Your task to perform on an android device: choose inbox layout in the gmail app Image 0: 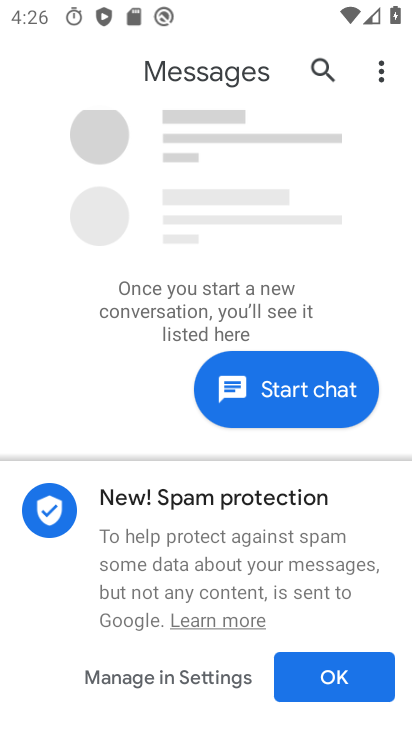
Step 0: press back button
Your task to perform on an android device: choose inbox layout in the gmail app Image 1: 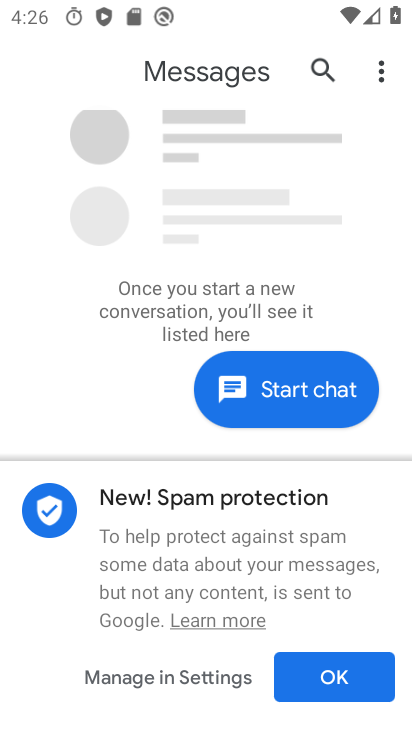
Step 1: press back button
Your task to perform on an android device: choose inbox layout in the gmail app Image 2: 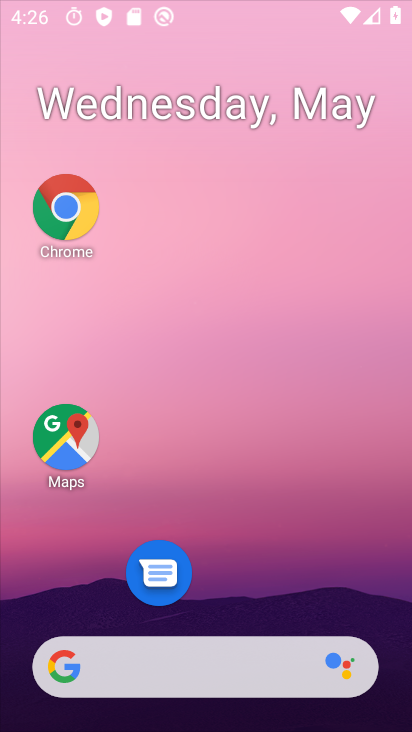
Step 2: press back button
Your task to perform on an android device: choose inbox layout in the gmail app Image 3: 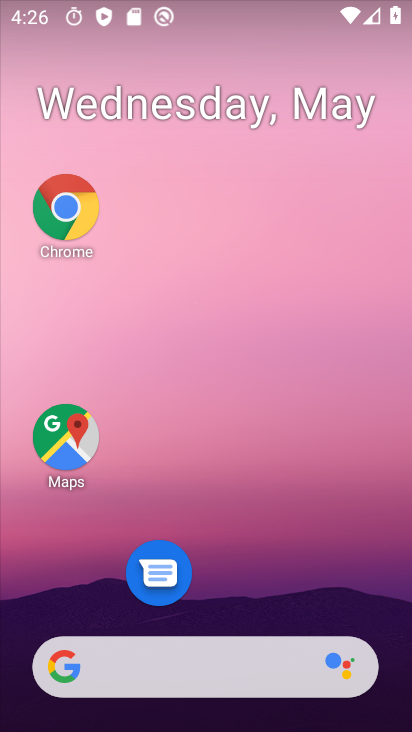
Step 3: press back button
Your task to perform on an android device: choose inbox layout in the gmail app Image 4: 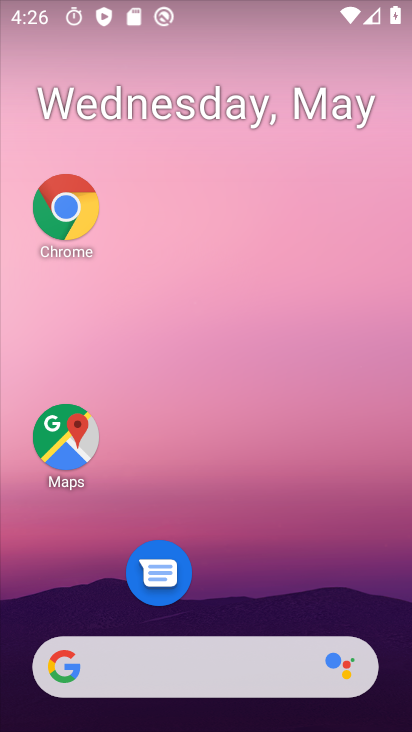
Step 4: drag from (248, 485) to (205, 14)
Your task to perform on an android device: choose inbox layout in the gmail app Image 5: 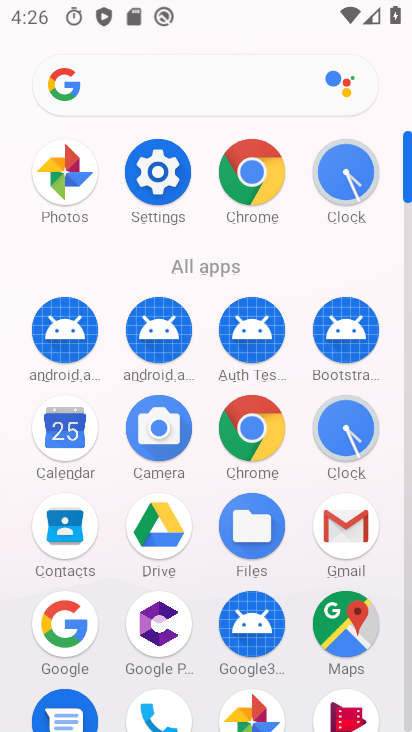
Step 5: click (338, 522)
Your task to perform on an android device: choose inbox layout in the gmail app Image 6: 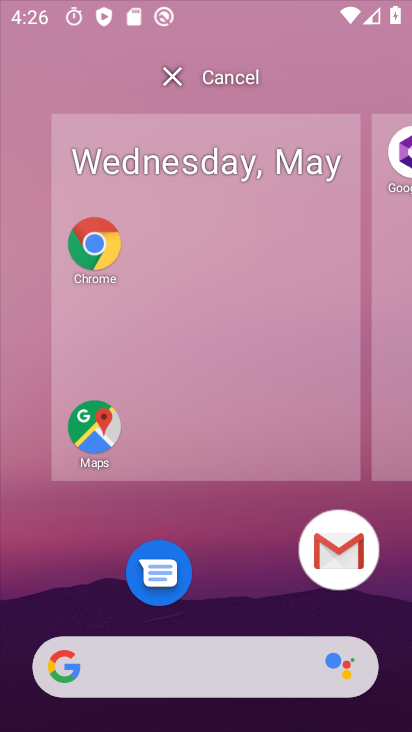
Step 6: click (331, 546)
Your task to perform on an android device: choose inbox layout in the gmail app Image 7: 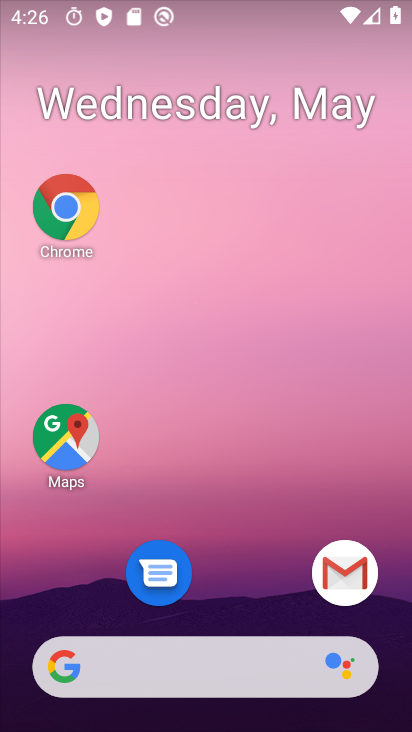
Step 7: click (349, 573)
Your task to perform on an android device: choose inbox layout in the gmail app Image 8: 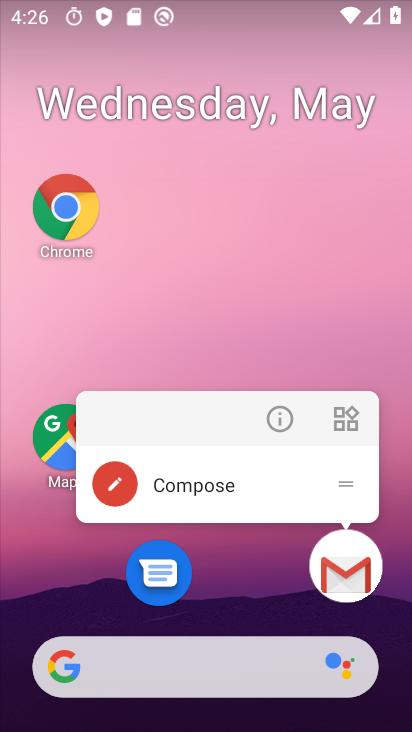
Step 8: click (356, 563)
Your task to perform on an android device: choose inbox layout in the gmail app Image 9: 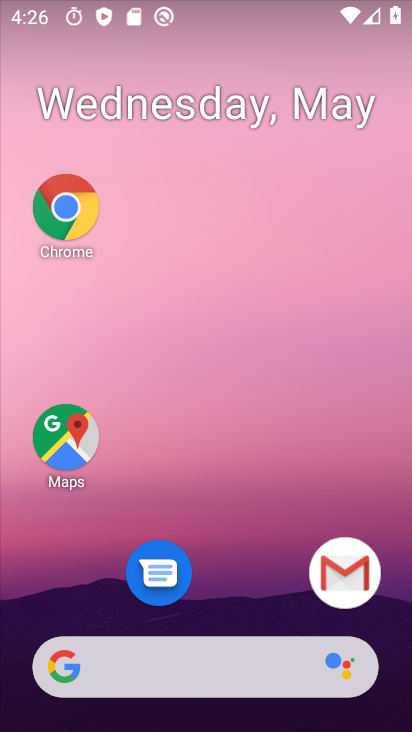
Step 9: click (357, 565)
Your task to perform on an android device: choose inbox layout in the gmail app Image 10: 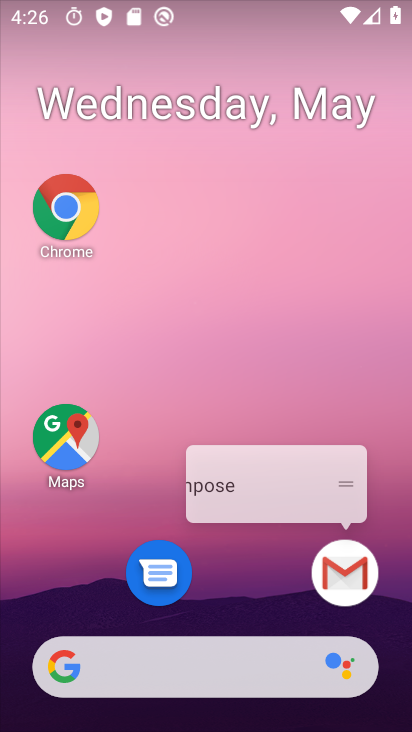
Step 10: click (333, 558)
Your task to perform on an android device: choose inbox layout in the gmail app Image 11: 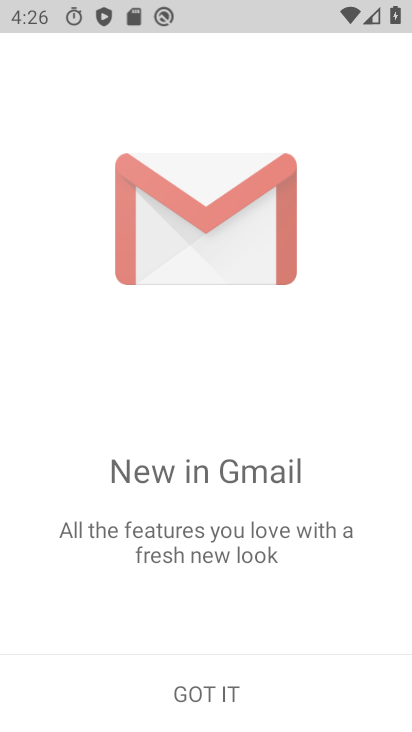
Step 11: click (359, 559)
Your task to perform on an android device: choose inbox layout in the gmail app Image 12: 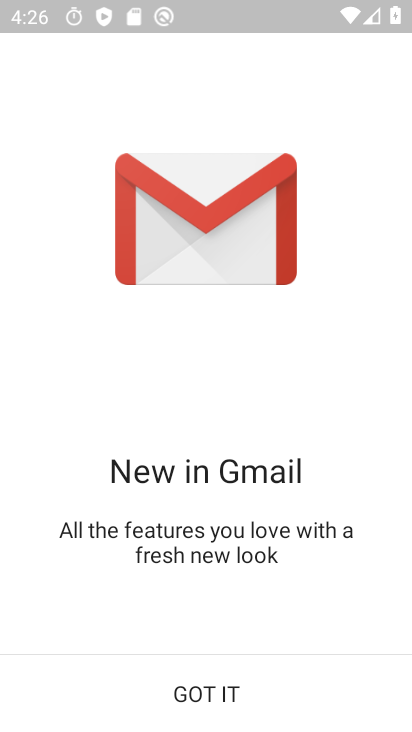
Step 12: click (216, 683)
Your task to perform on an android device: choose inbox layout in the gmail app Image 13: 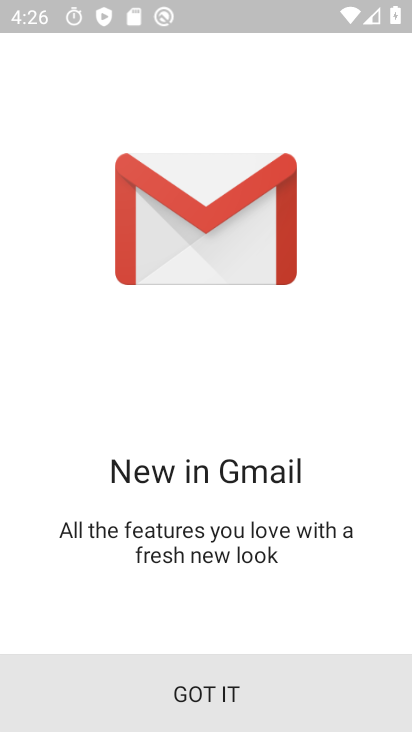
Step 13: click (216, 703)
Your task to perform on an android device: choose inbox layout in the gmail app Image 14: 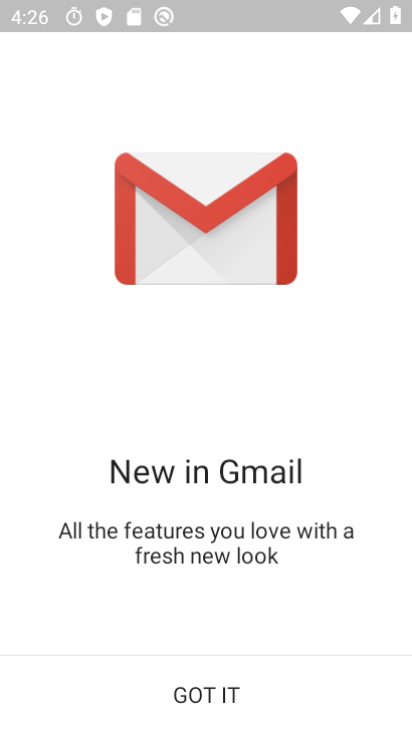
Step 14: click (212, 710)
Your task to perform on an android device: choose inbox layout in the gmail app Image 15: 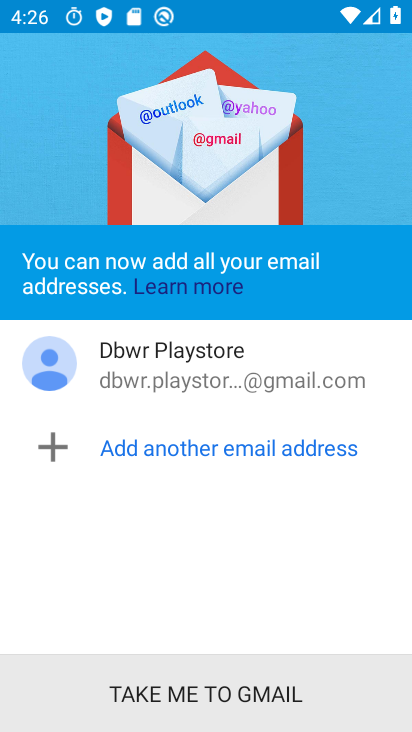
Step 15: click (204, 699)
Your task to perform on an android device: choose inbox layout in the gmail app Image 16: 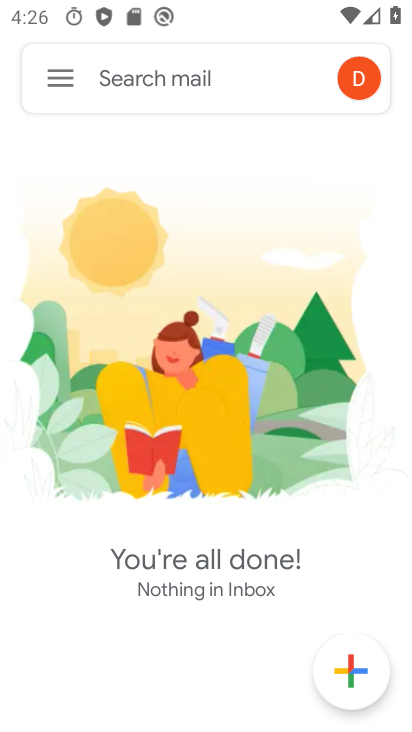
Step 16: click (182, 568)
Your task to perform on an android device: choose inbox layout in the gmail app Image 17: 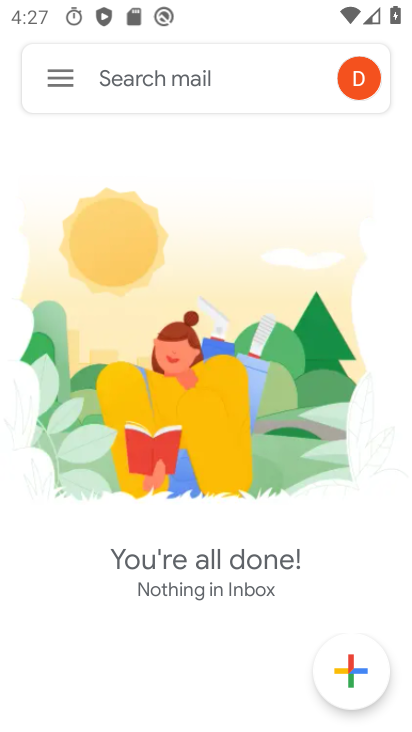
Step 17: click (182, 568)
Your task to perform on an android device: choose inbox layout in the gmail app Image 18: 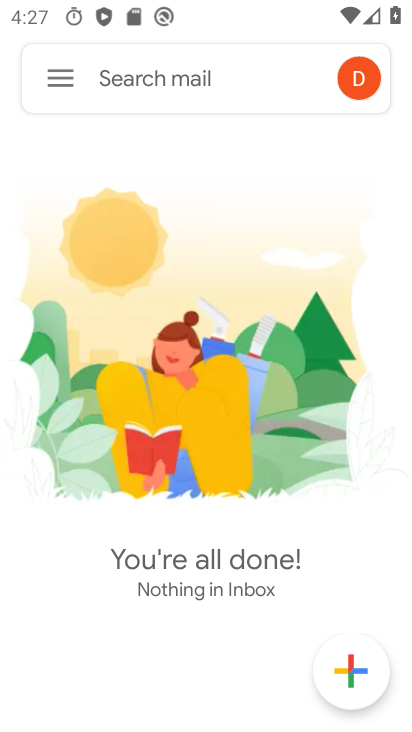
Step 18: click (183, 569)
Your task to perform on an android device: choose inbox layout in the gmail app Image 19: 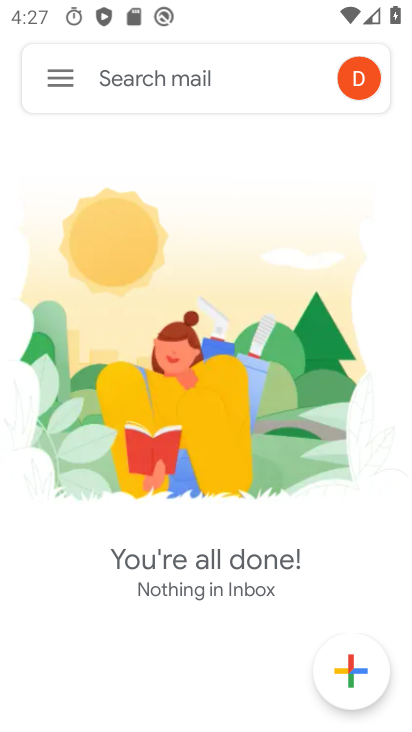
Step 19: click (190, 563)
Your task to perform on an android device: choose inbox layout in the gmail app Image 20: 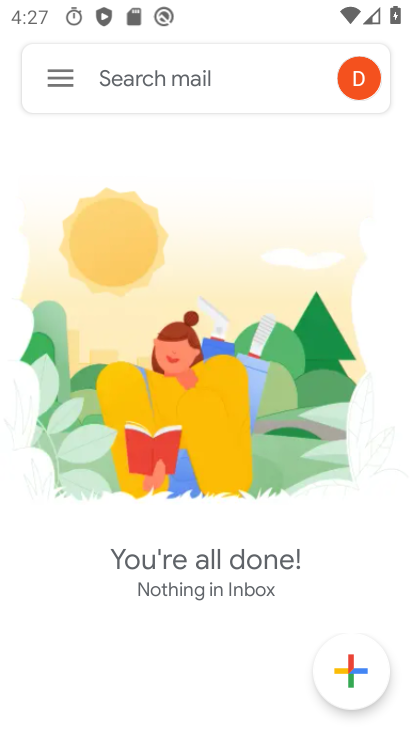
Step 20: click (262, 540)
Your task to perform on an android device: choose inbox layout in the gmail app Image 21: 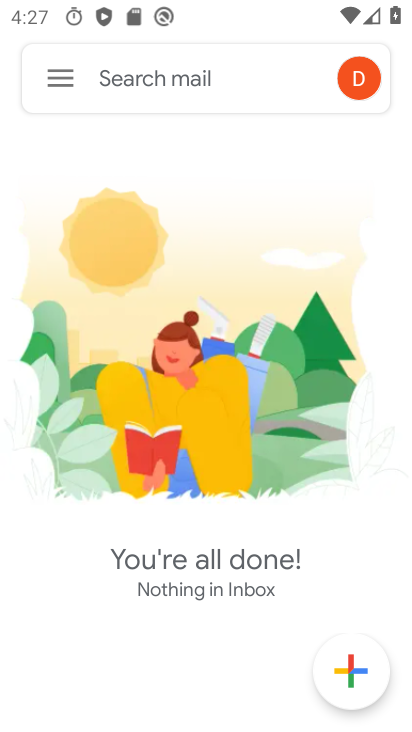
Step 21: click (235, 566)
Your task to perform on an android device: choose inbox layout in the gmail app Image 22: 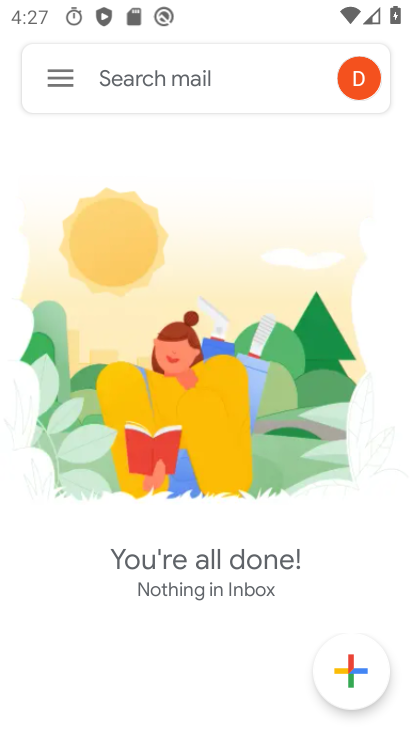
Step 22: drag from (218, 577) to (189, 553)
Your task to perform on an android device: choose inbox layout in the gmail app Image 23: 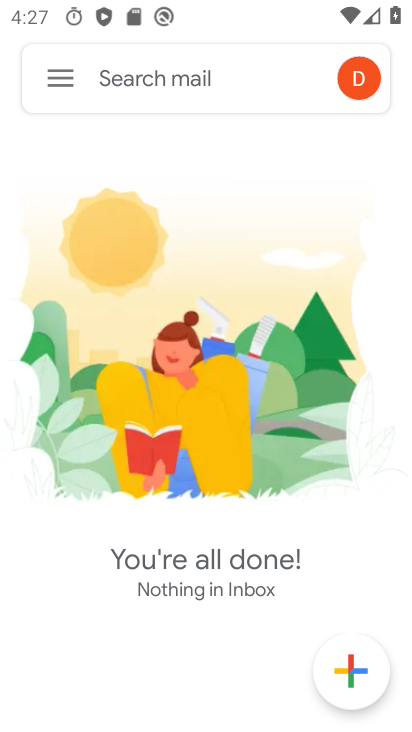
Step 23: click (193, 548)
Your task to perform on an android device: choose inbox layout in the gmail app Image 24: 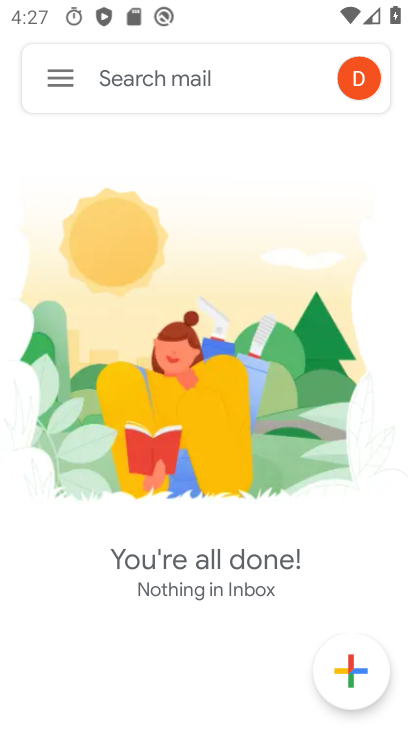
Step 24: drag from (53, 60) to (85, 199)
Your task to perform on an android device: choose inbox layout in the gmail app Image 25: 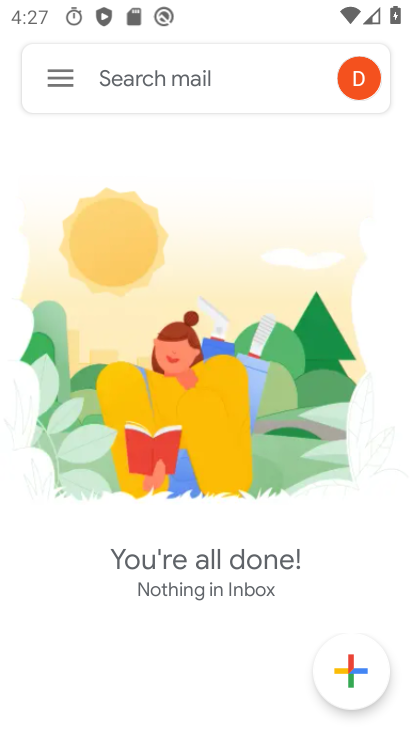
Step 25: click (51, 84)
Your task to perform on an android device: choose inbox layout in the gmail app Image 26: 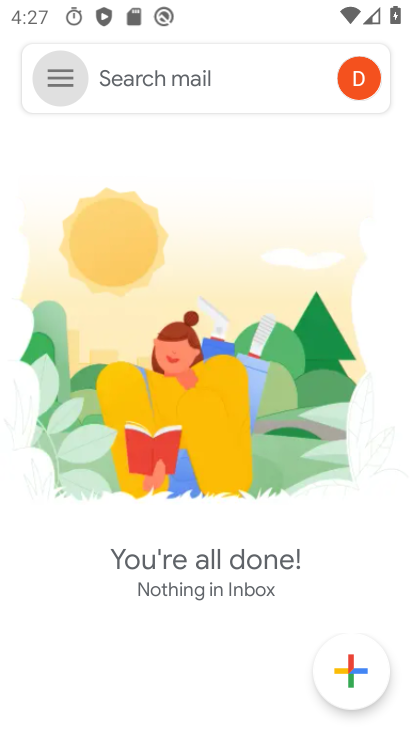
Step 26: drag from (54, 74) to (401, 609)
Your task to perform on an android device: choose inbox layout in the gmail app Image 27: 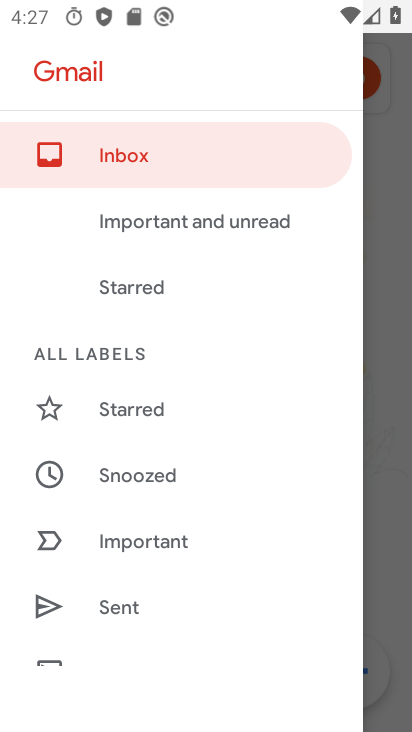
Step 27: drag from (134, 506) to (110, 210)
Your task to perform on an android device: choose inbox layout in the gmail app Image 28: 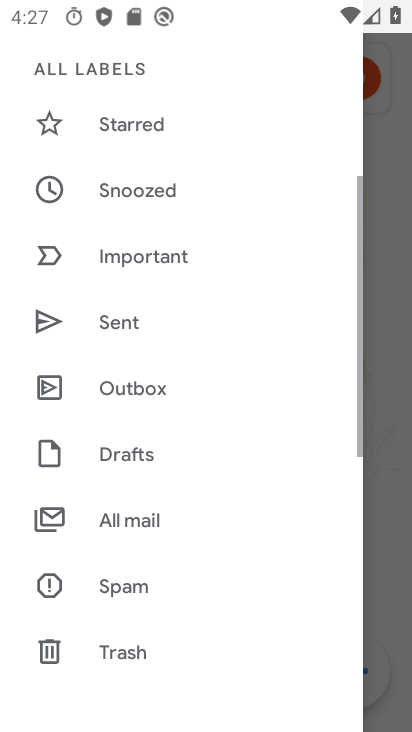
Step 28: drag from (128, 458) to (128, 127)
Your task to perform on an android device: choose inbox layout in the gmail app Image 29: 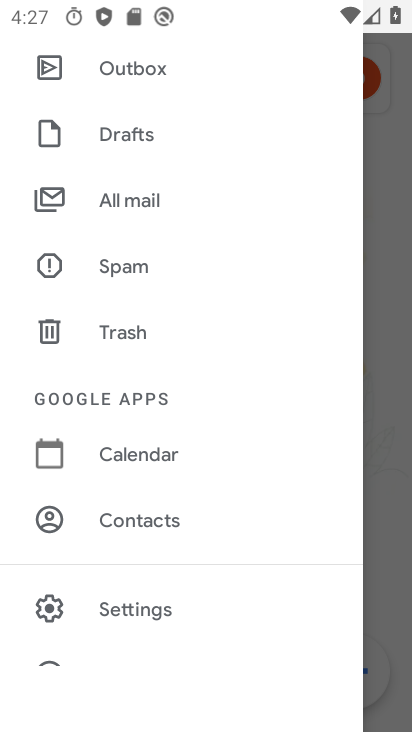
Step 29: click (120, 206)
Your task to perform on an android device: choose inbox layout in the gmail app Image 30: 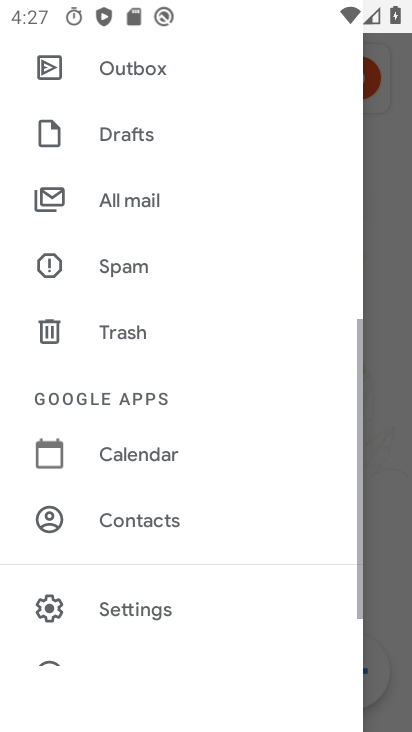
Step 30: click (120, 206)
Your task to perform on an android device: choose inbox layout in the gmail app Image 31: 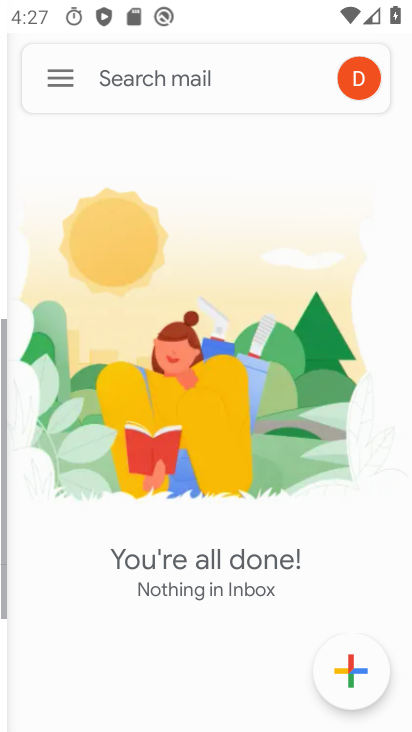
Step 31: click (121, 205)
Your task to perform on an android device: choose inbox layout in the gmail app Image 32: 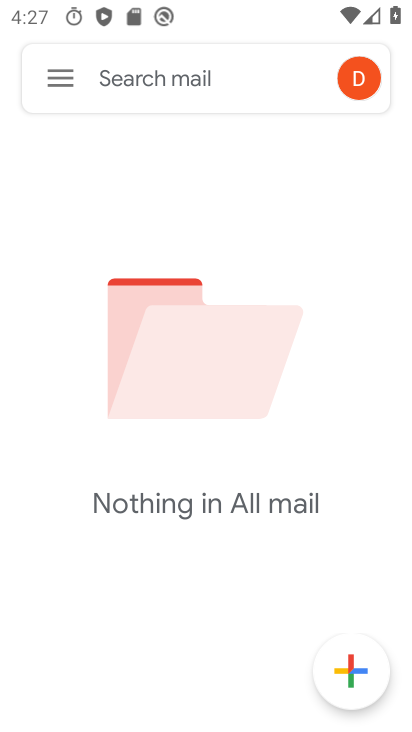
Step 32: task complete